Your task to perform on an android device: Show me productivity apps on the Play Store Image 0: 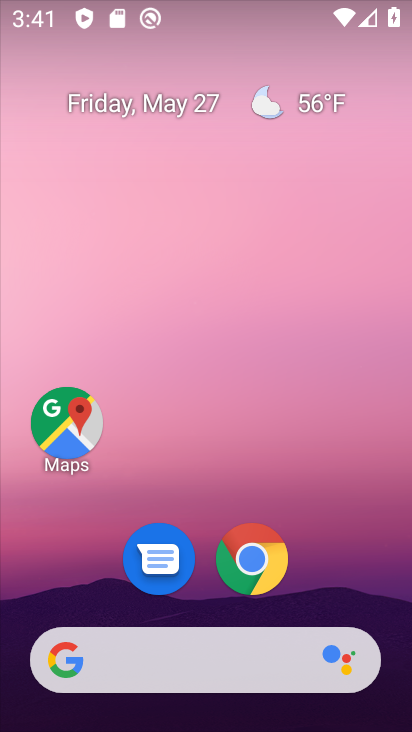
Step 0: drag from (62, 605) to (239, 189)
Your task to perform on an android device: Show me productivity apps on the Play Store Image 1: 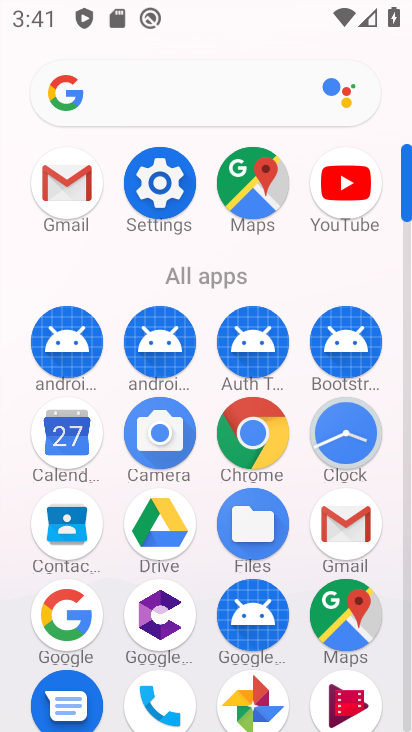
Step 1: drag from (167, 602) to (240, 439)
Your task to perform on an android device: Show me productivity apps on the Play Store Image 2: 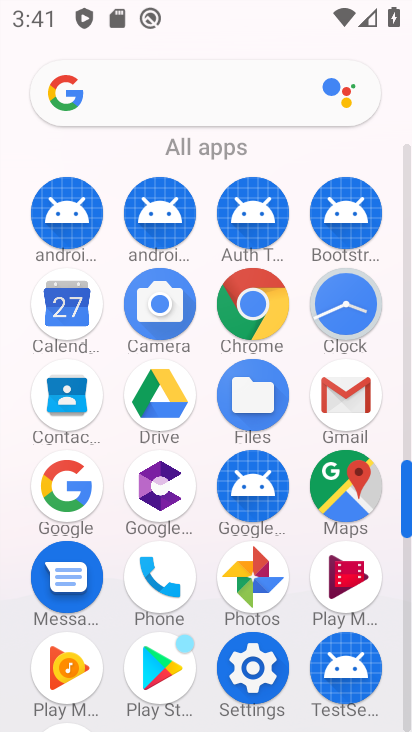
Step 2: click (167, 654)
Your task to perform on an android device: Show me productivity apps on the Play Store Image 3: 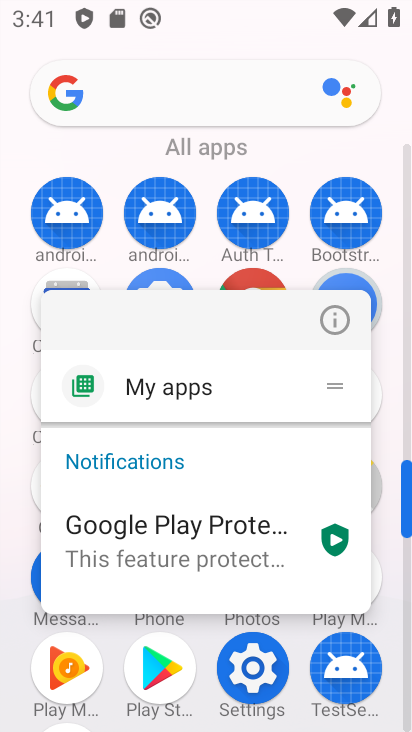
Step 3: click (167, 654)
Your task to perform on an android device: Show me productivity apps on the Play Store Image 4: 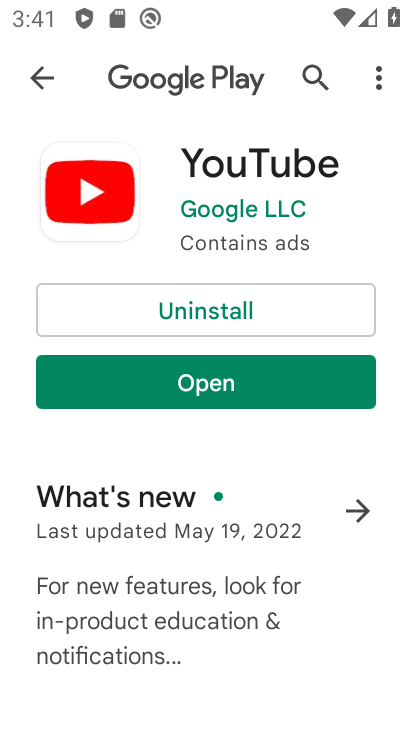
Step 4: click (47, 91)
Your task to perform on an android device: Show me productivity apps on the Play Store Image 5: 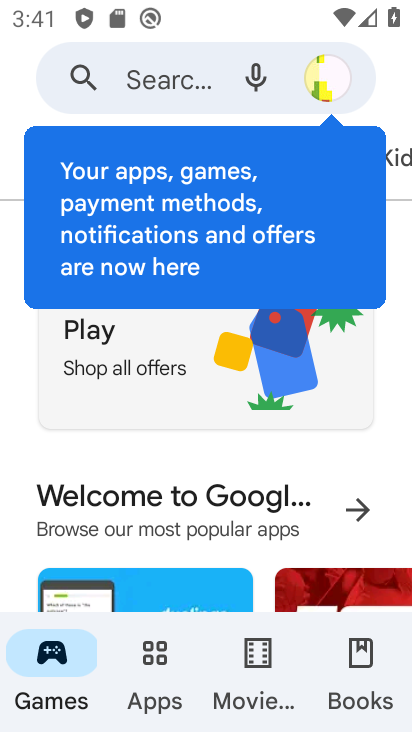
Step 5: click (146, 656)
Your task to perform on an android device: Show me productivity apps on the Play Store Image 6: 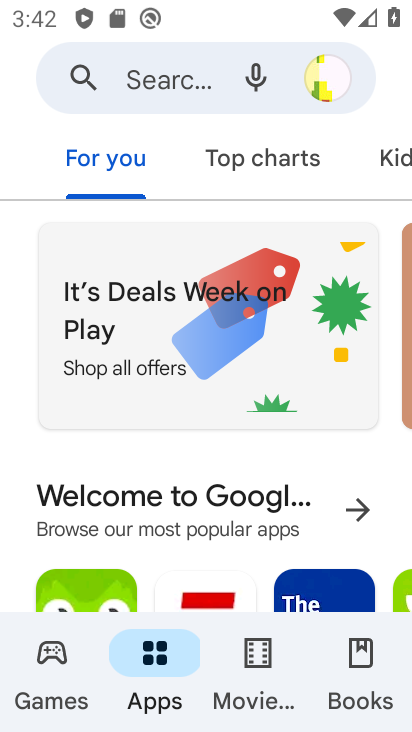
Step 6: drag from (381, 172) to (133, 138)
Your task to perform on an android device: Show me productivity apps on the Play Store Image 7: 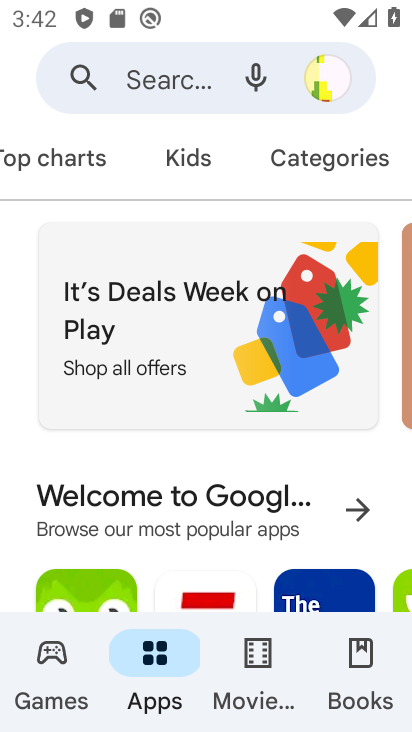
Step 7: click (325, 147)
Your task to perform on an android device: Show me productivity apps on the Play Store Image 8: 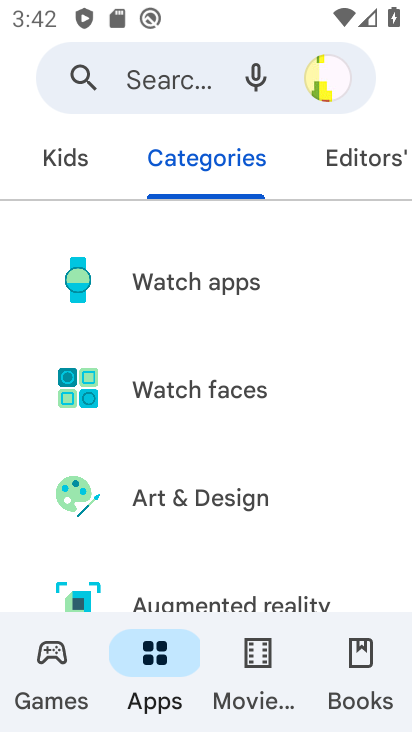
Step 8: drag from (227, 567) to (371, 146)
Your task to perform on an android device: Show me productivity apps on the Play Store Image 9: 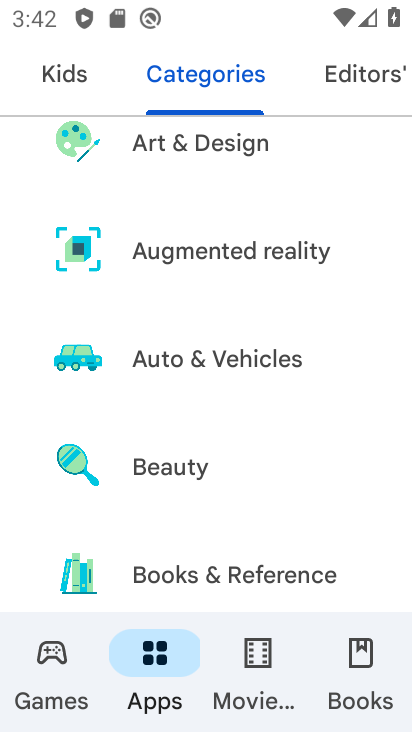
Step 9: drag from (199, 547) to (331, 131)
Your task to perform on an android device: Show me productivity apps on the Play Store Image 10: 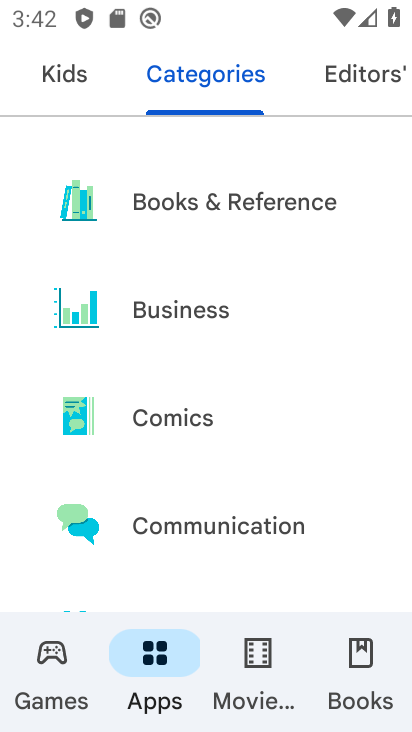
Step 10: drag from (238, 518) to (369, 41)
Your task to perform on an android device: Show me productivity apps on the Play Store Image 11: 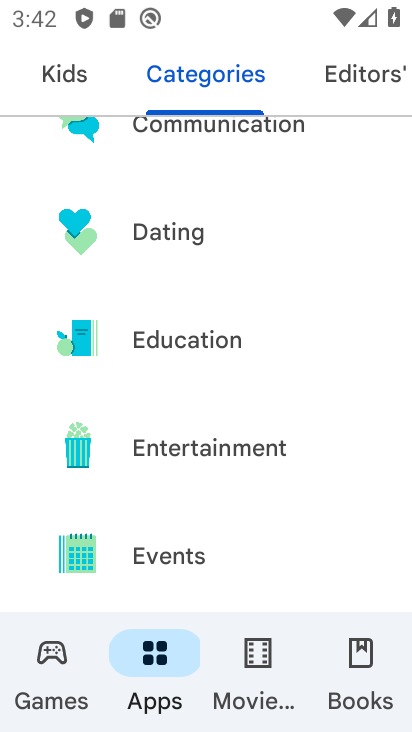
Step 11: drag from (219, 427) to (382, 15)
Your task to perform on an android device: Show me productivity apps on the Play Store Image 12: 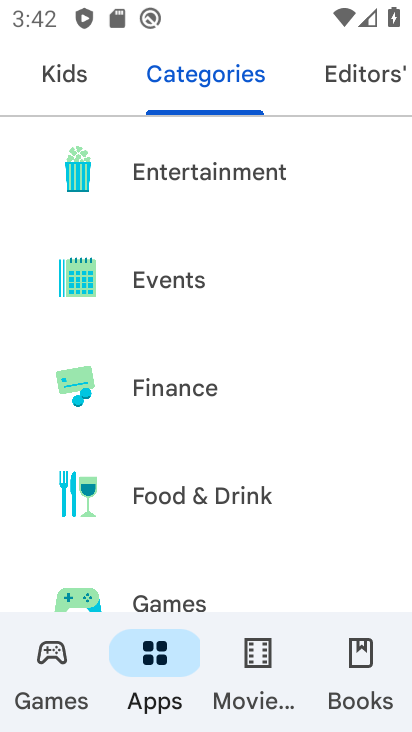
Step 12: drag from (221, 560) to (376, 89)
Your task to perform on an android device: Show me productivity apps on the Play Store Image 13: 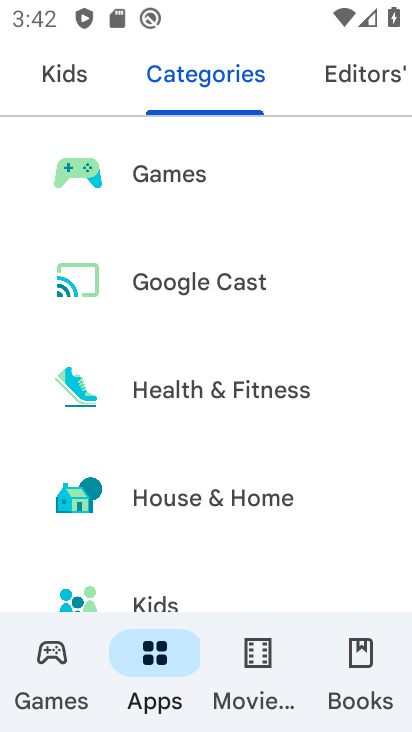
Step 13: drag from (205, 562) to (342, 150)
Your task to perform on an android device: Show me productivity apps on the Play Store Image 14: 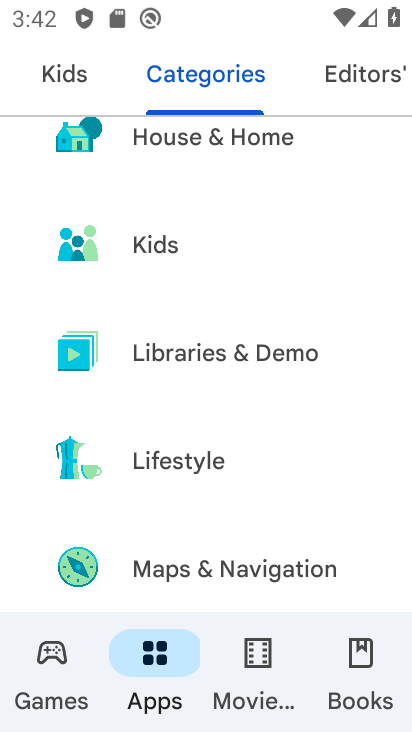
Step 14: drag from (176, 613) to (359, 132)
Your task to perform on an android device: Show me productivity apps on the Play Store Image 15: 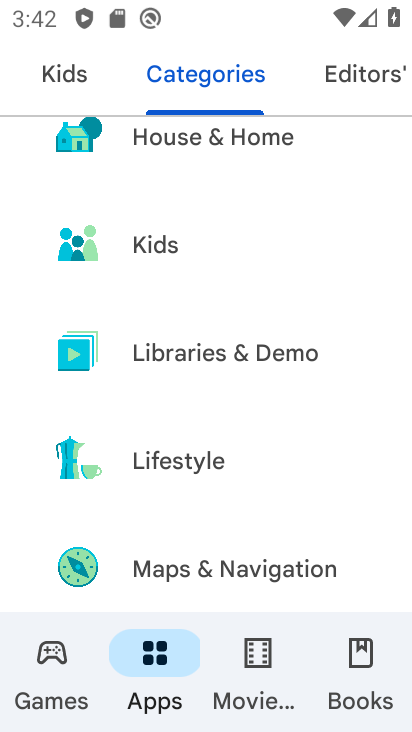
Step 15: drag from (148, 546) to (297, 178)
Your task to perform on an android device: Show me productivity apps on the Play Store Image 16: 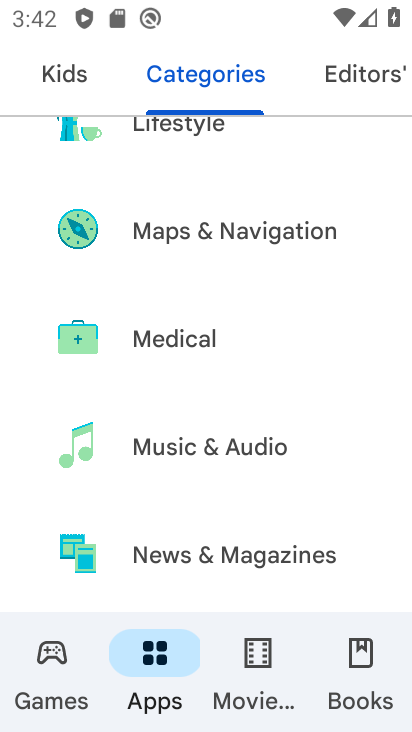
Step 16: drag from (231, 551) to (367, 170)
Your task to perform on an android device: Show me productivity apps on the Play Store Image 17: 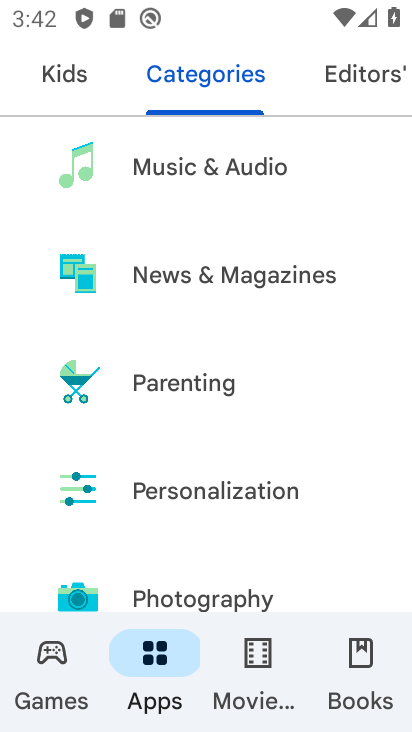
Step 17: drag from (230, 583) to (347, 280)
Your task to perform on an android device: Show me productivity apps on the Play Store Image 18: 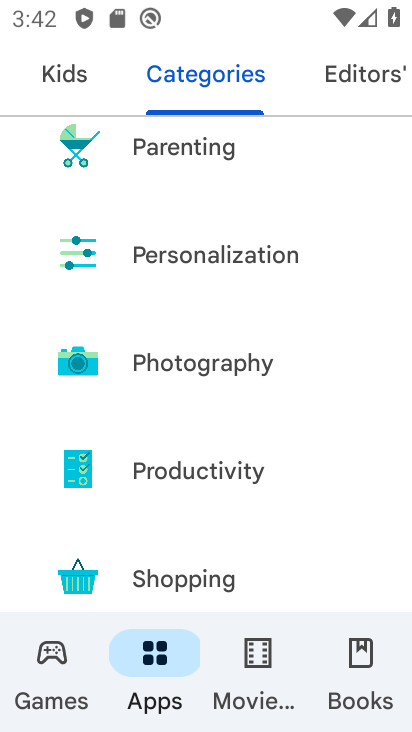
Step 18: click (247, 468)
Your task to perform on an android device: Show me productivity apps on the Play Store Image 19: 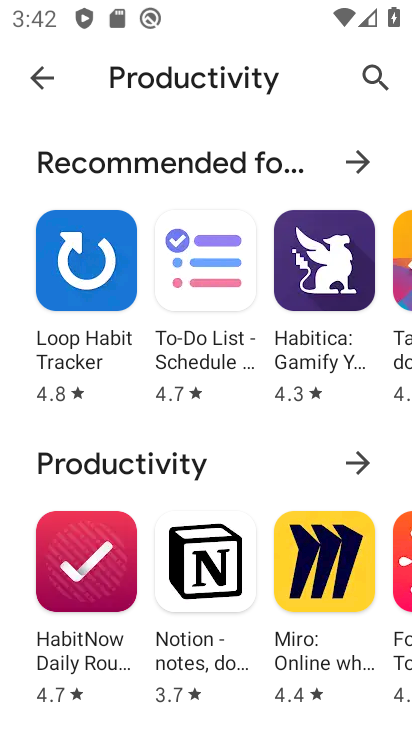
Step 19: task complete